Your task to perform on an android device: open app "Duolingo: language lessons" (install if not already installed) Image 0: 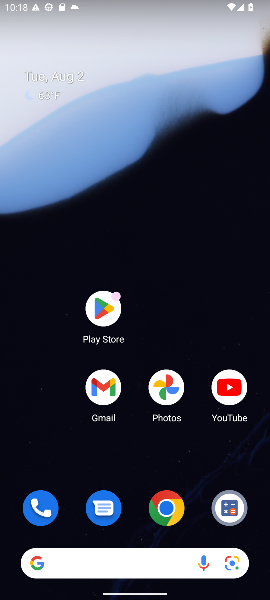
Step 0: click (100, 304)
Your task to perform on an android device: open app "Duolingo: language lessons" (install if not already installed) Image 1: 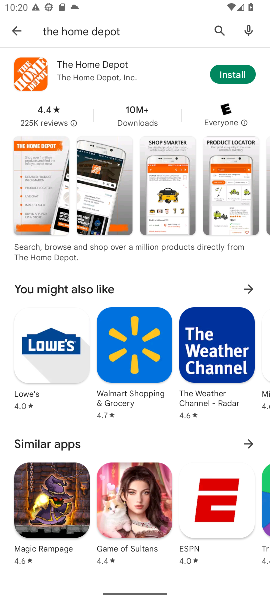
Step 1: click (142, 33)
Your task to perform on an android device: open app "Duolingo: language lessons" (install if not already installed) Image 2: 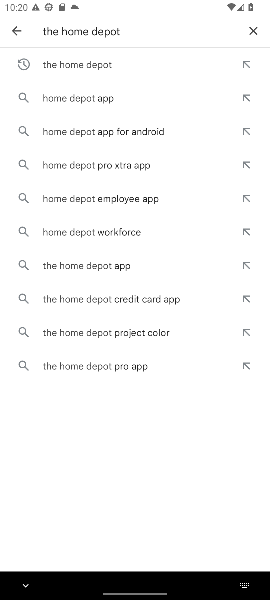
Step 2: click (219, 27)
Your task to perform on an android device: open app "Duolingo: language lessons" (install if not already installed) Image 3: 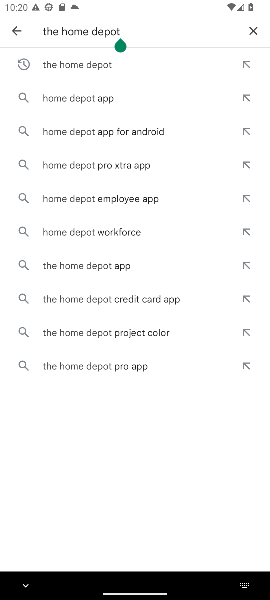
Step 3: click (255, 31)
Your task to perform on an android device: open app "Duolingo: language lessons" (install if not already installed) Image 4: 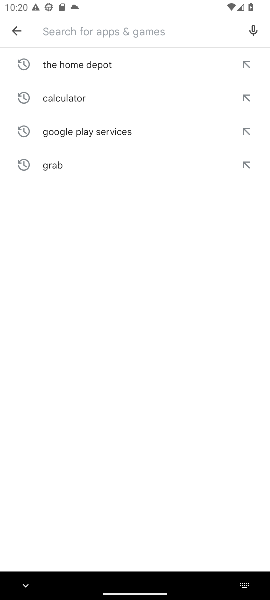
Step 4: type "Duolingo: language lessons"
Your task to perform on an android device: open app "Duolingo: language lessons" (install if not already installed) Image 5: 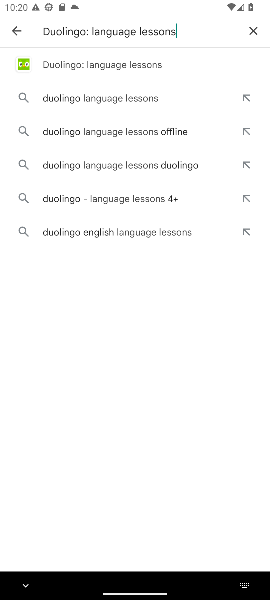
Step 5: click (59, 63)
Your task to perform on an android device: open app "Duolingo: language lessons" (install if not already installed) Image 6: 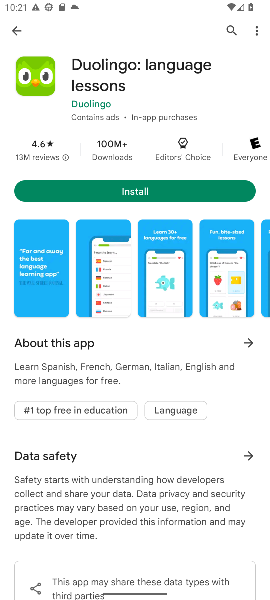
Step 6: click (157, 193)
Your task to perform on an android device: open app "Duolingo: language lessons" (install if not already installed) Image 7: 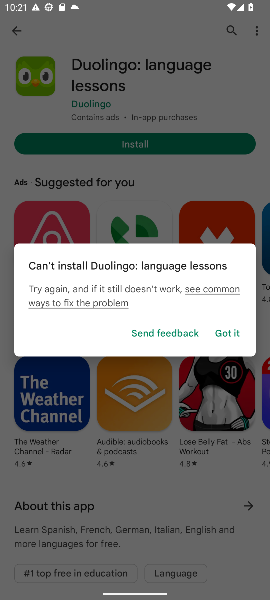
Step 7: click (223, 332)
Your task to perform on an android device: open app "Duolingo: language lessons" (install if not already installed) Image 8: 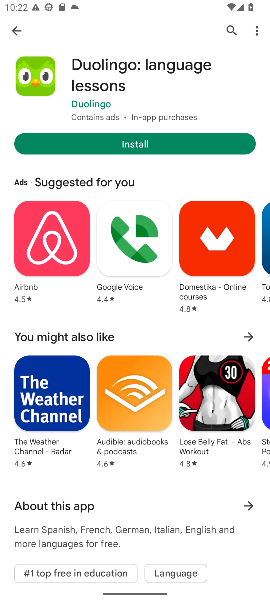
Step 8: task complete